Your task to perform on an android device: turn off priority inbox in the gmail app Image 0: 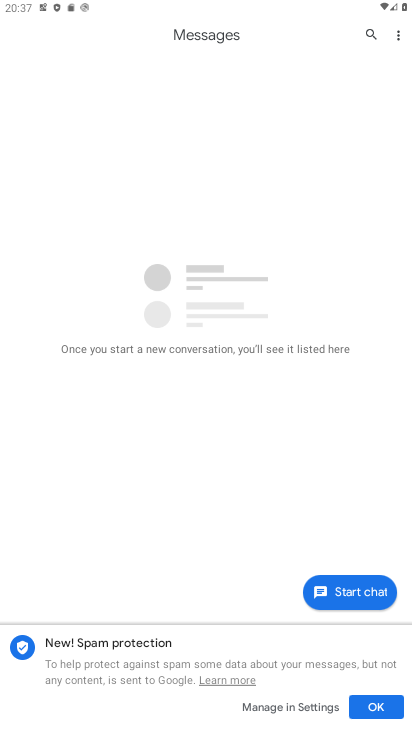
Step 0: press home button
Your task to perform on an android device: turn off priority inbox in the gmail app Image 1: 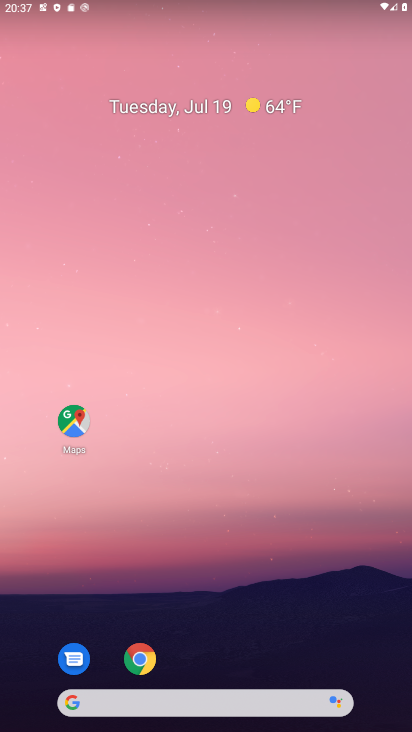
Step 1: drag from (335, 638) to (293, 6)
Your task to perform on an android device: turn off priority inbox in the gmail app Image 2: 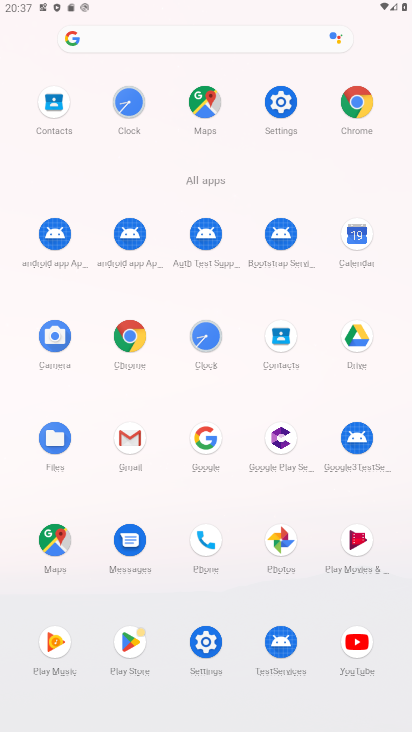
Step 2: click (142, 444)
Your task to perform on an android device: turn off priority inbox in the gmail app Image 3: 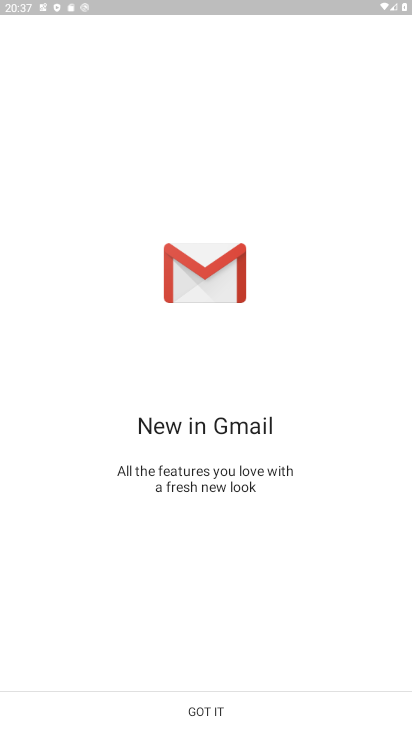
Step 3: click (255, 711)
Your task to perform on an android device: turn off priority inbox in the gmail app Image 4: 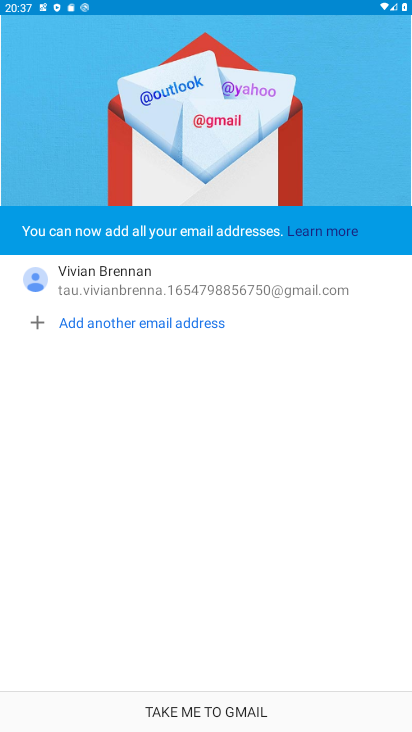
Step 4: click (255, 711)
Your task to perform on an android device: turn off priority inbox in the gmail app Image 5: 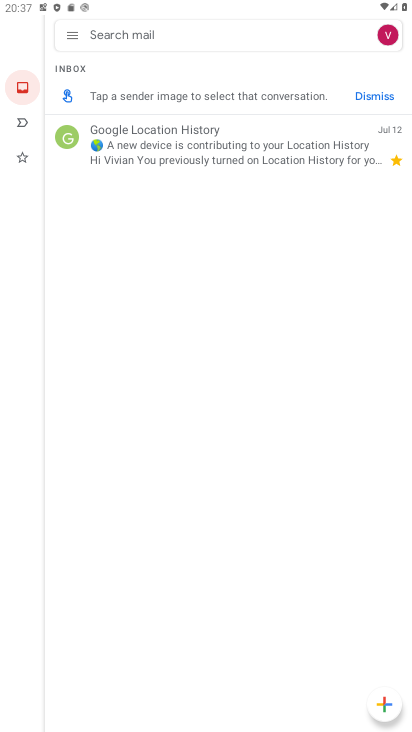
Step 5: click (73, 49)
Your task to perform on an android device: turn off priority inbox in the gmail app Image 6: 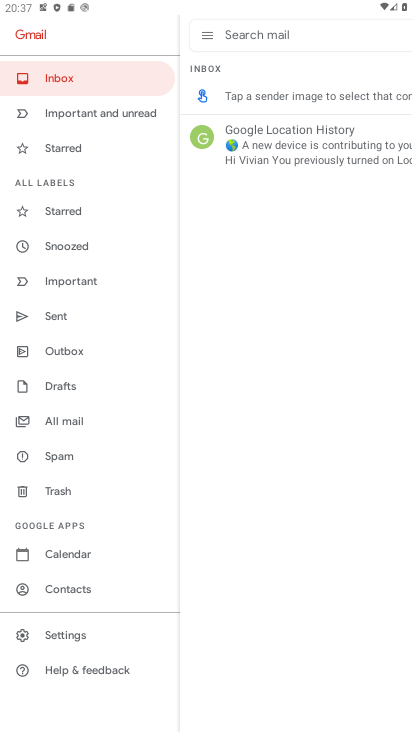
Step 6: click (99, 621)
Your task to perform on an android device: turn off priority inbox in the gmail app Image 7: 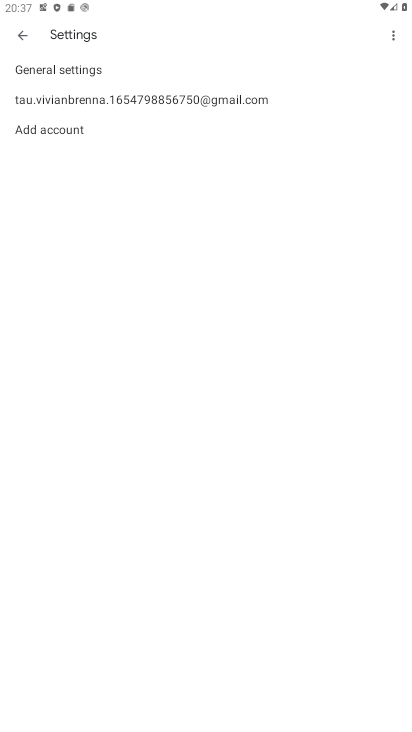
Step 7: click (203, 95)
Your task to perform on an android device: turn off priority inbox in the gmail app Image 8: 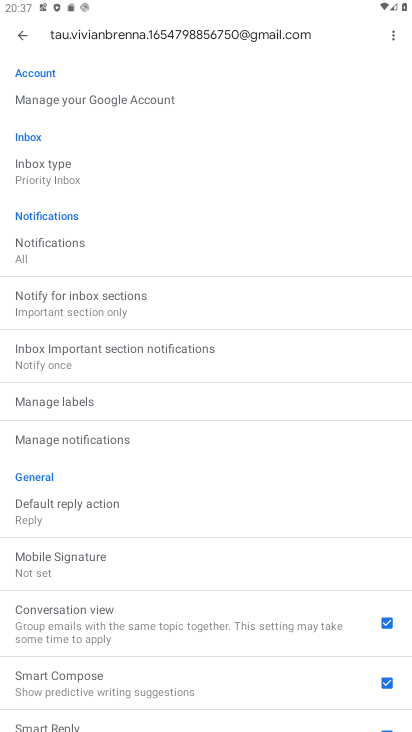
Step 8: click (68, 185)
Your task to perform on an android device: turn off priority inbox in the gmail app Image 9: 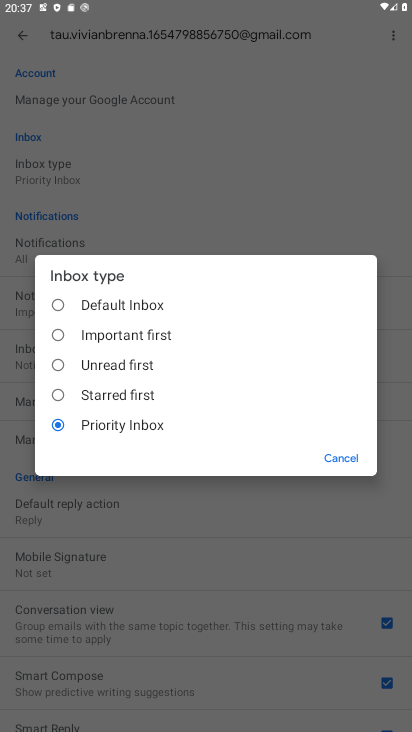
Step 9: click (109, 297)
Your task to perform on an android device: turn off priority inbox in the gmail app Image 10: 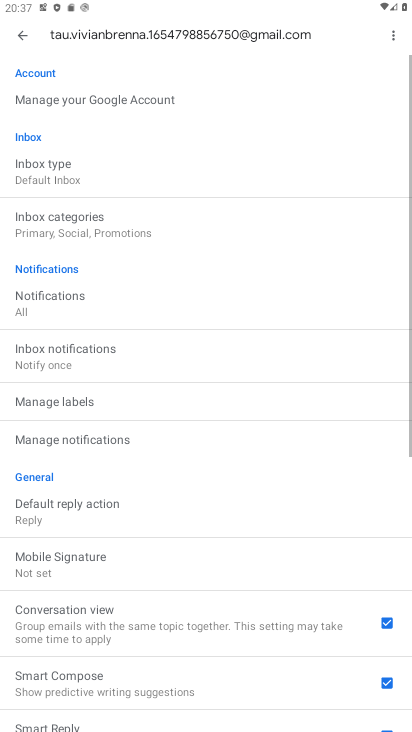
Step 10: task complete